Your task to perform on an android device: delete location history Image 0: 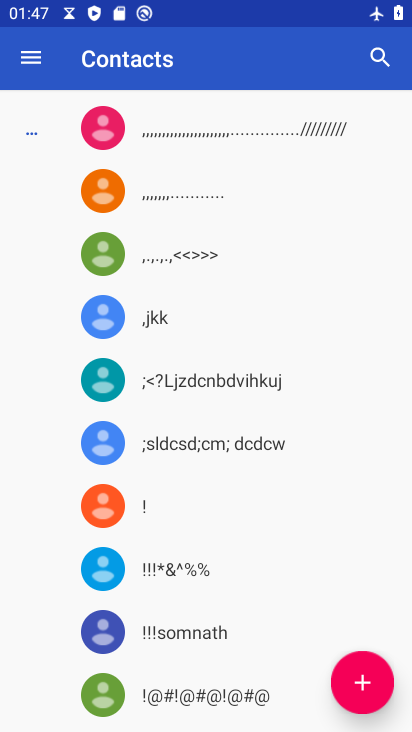
Step 0: press home button
Your task to perform on an android device: delete location history Image 1: 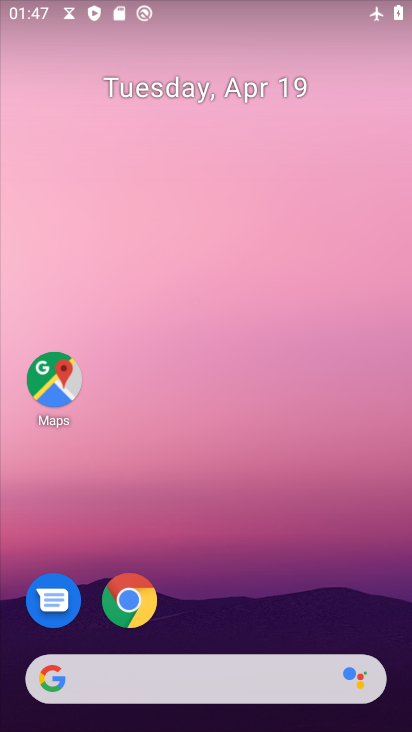
Step 1: drag from (243, 649) to (191, 1)
Your task to perform on an android device: delete location history Image 2: 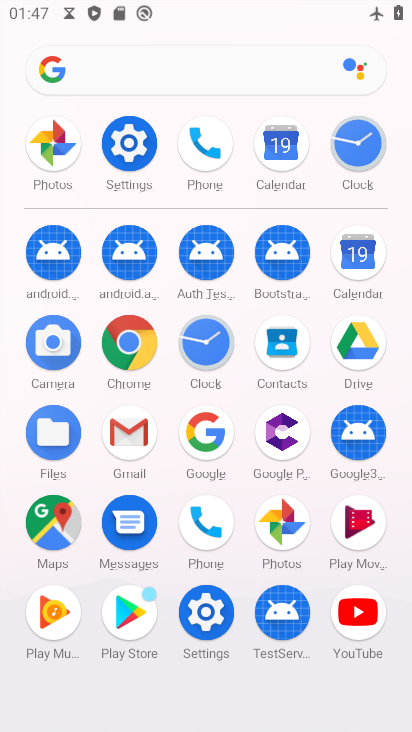
Step 2: click (44, 522)
Your task to perform on an android device: delete location history Image 3: 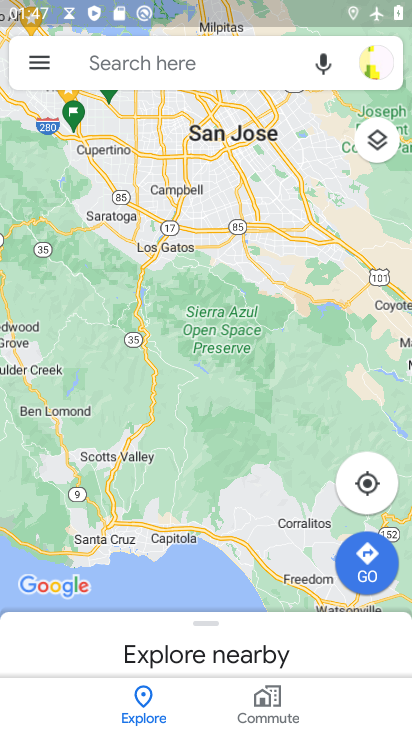
Step 3: click (49, 55)
Your task to perform on an android device: delete location history Image 4: 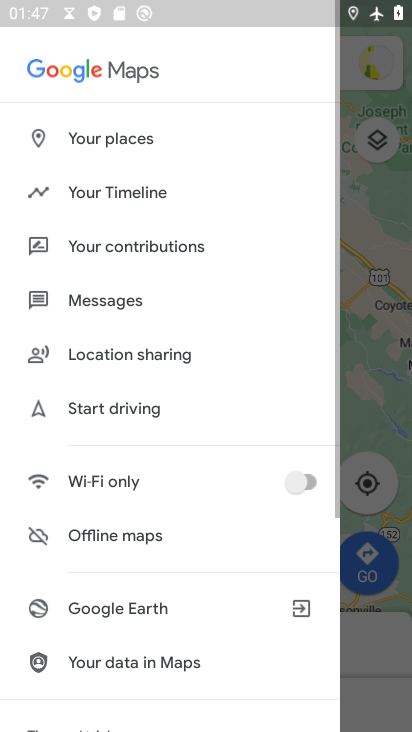
Step 4: click (96, 188)
Your task to perform on an android device: delete location history Image 5: 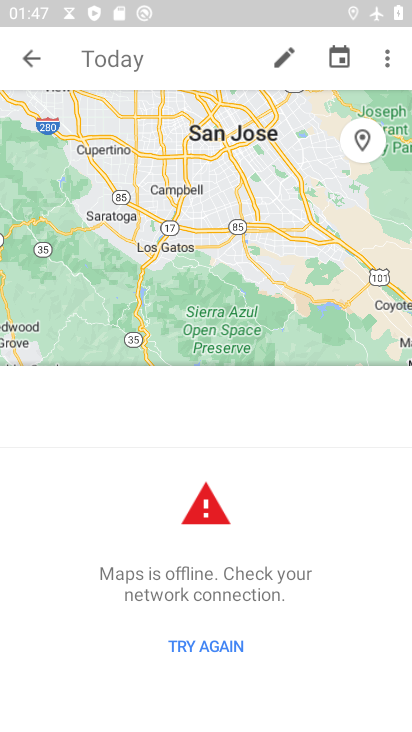
Step 5: click (204, 641)
Your task to perform on an android device: delete location history Image 6: 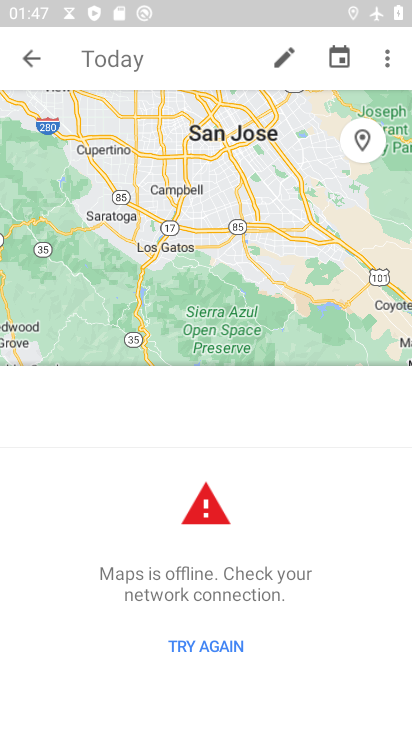
Step 6: click (385, 64)
Your task to perform on an android device: delete location history Image 7: 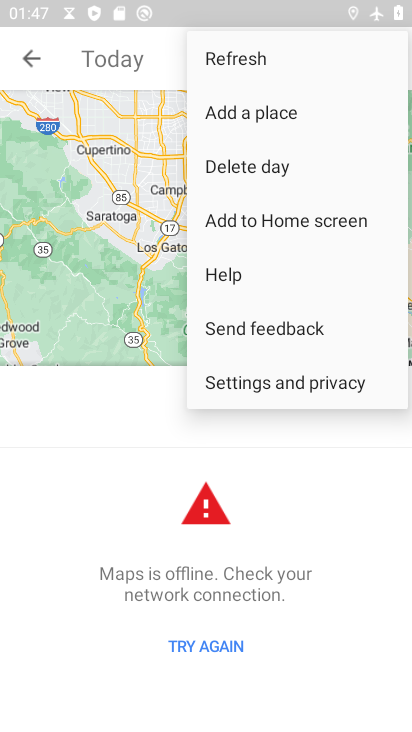
Step 7: click (279, 374)
Your task to perform on an android device: delete location history Image 8: 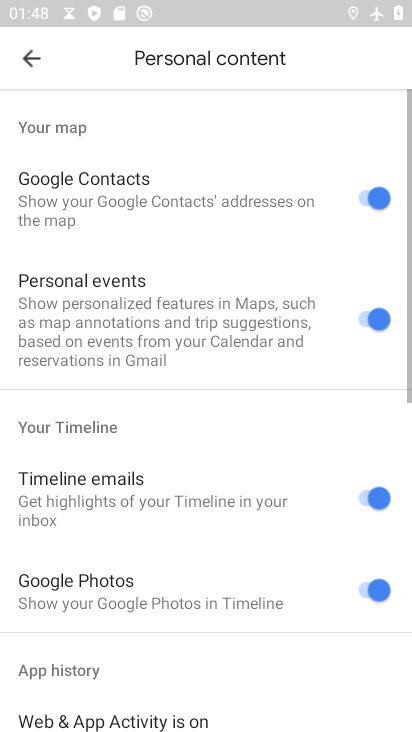
Step 8: drag from (153, 469) to (95, 18)
Your task to perform on an android device: delete location history Image 9: 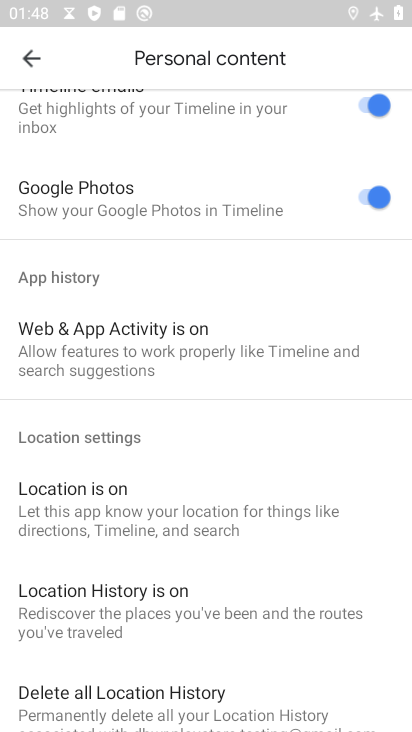
Step 9: click (151, 672)
Your task to perform on an android device: delete location history Image 10: 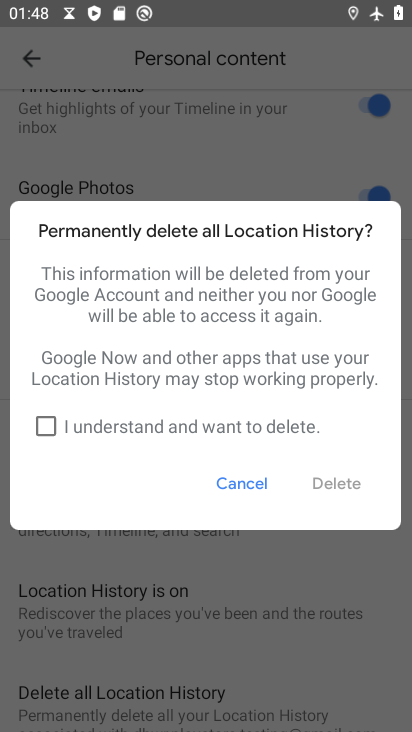
Step 10: click (41, 417)
Your task to perform on an android device: delete location history Image 11: 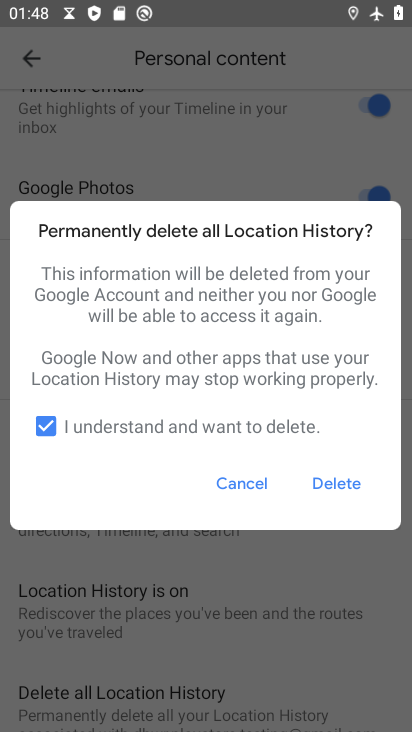
Step 11: click (331, 487)
Your task to perform on an android device: delete location history Image 12: 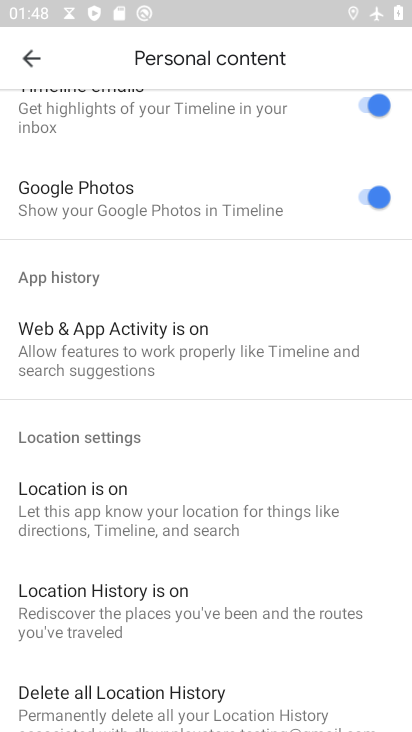
Step 12: task complete